Your task to perform on an android device: turn off picture-in-picture Image 0: 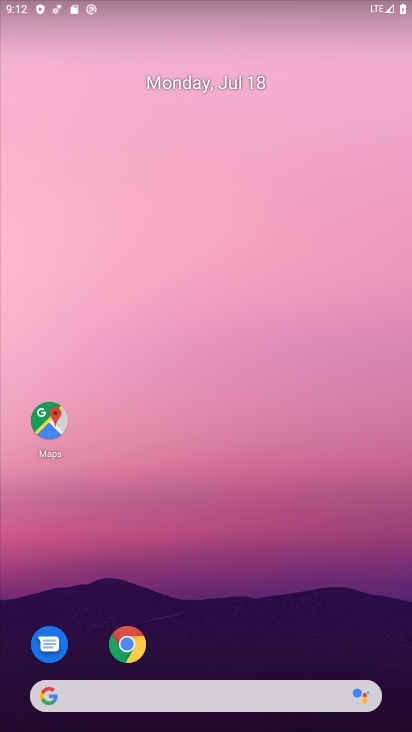
Step 0: drag from (344, 590) to (386, 203)
Your task to perform on an android device: turn off picture-in-picture Image 1: 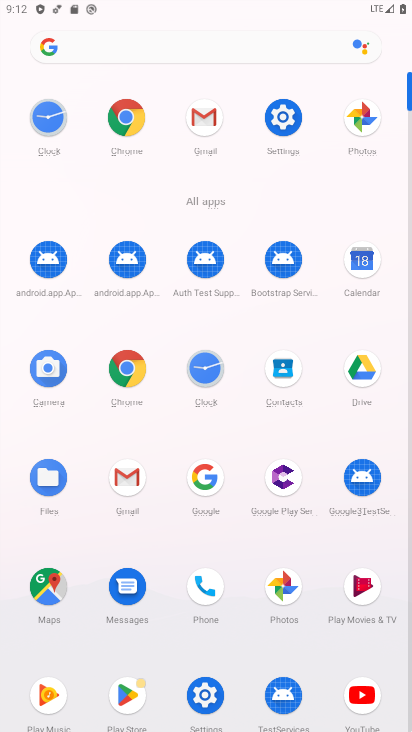
Step 1: click (274, 124)
Your task to perform on an android device: turn off picture-in-picture Image 2: 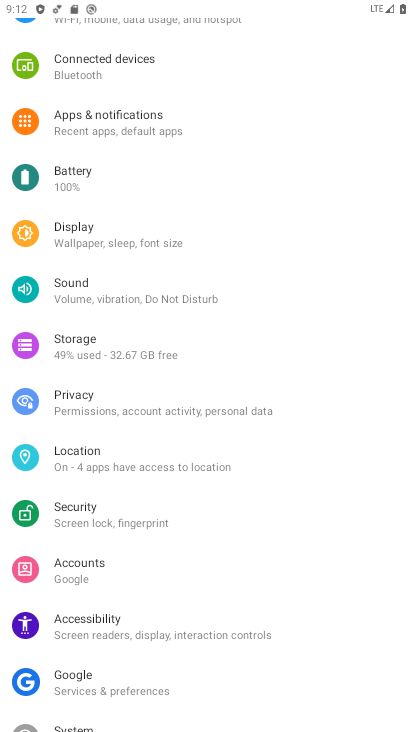
Step 2: drag from (287, 142) to (310, 345)
Your task to perform on an android device: turn off picture-in-picture Image 3: 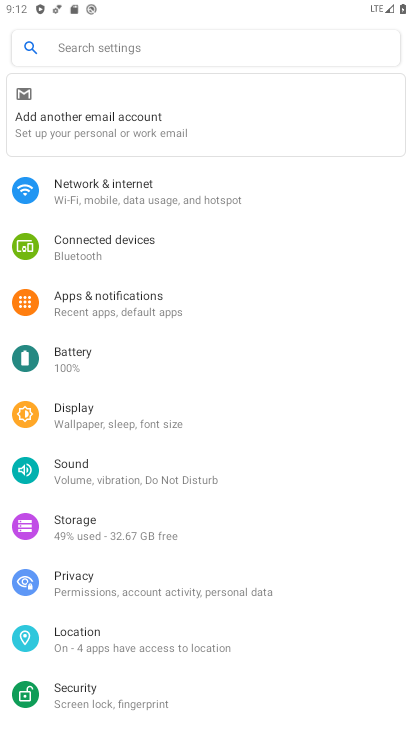
Step 3: drag from (290, 254) to (291, 357)
Your task to perform on an android device: turn off picture-in-picture Image 4: 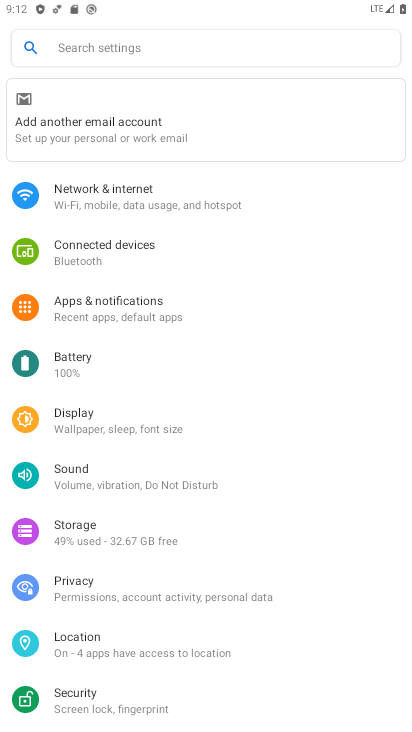
Step 4: click (165, 320)
Your task to perform on an android device: turn off picture-in-picture Image 5: 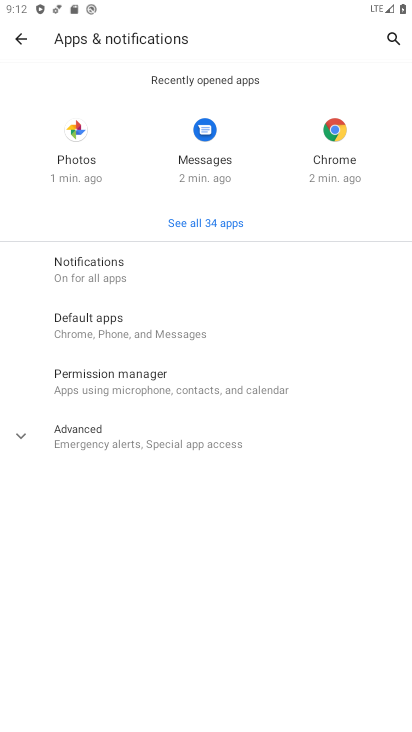
Step 5: click (148, 431)
Your task to perform on an android device: turn off picture-in-picture Image 6: 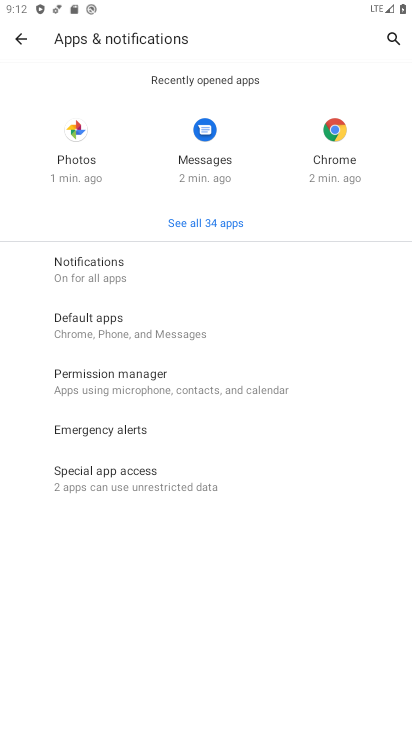
Step 6: click (156, 489)
Your task to perform on an android device: turn off picture-in-picture Image 7: 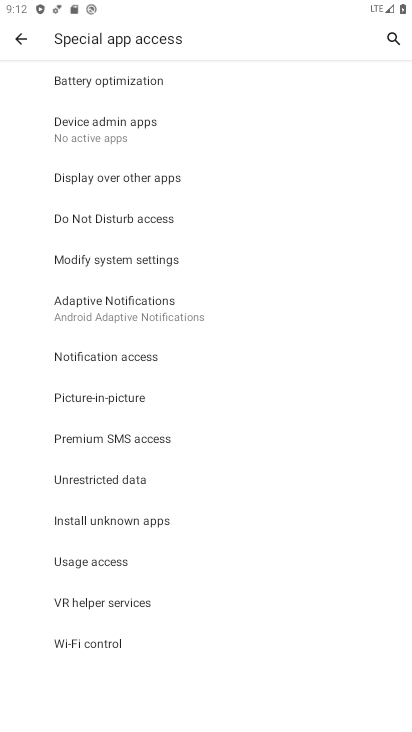
Step 7: click (139, 405)
Your task to perform on an android device: turn off picture-in-picture Image 8: 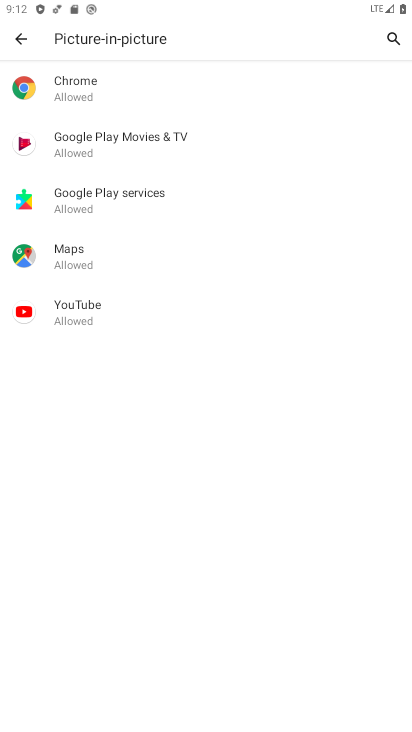
Step 8: click (103, 322)
Your task to perform on an android device: turn off picture-in-picture Image 9: 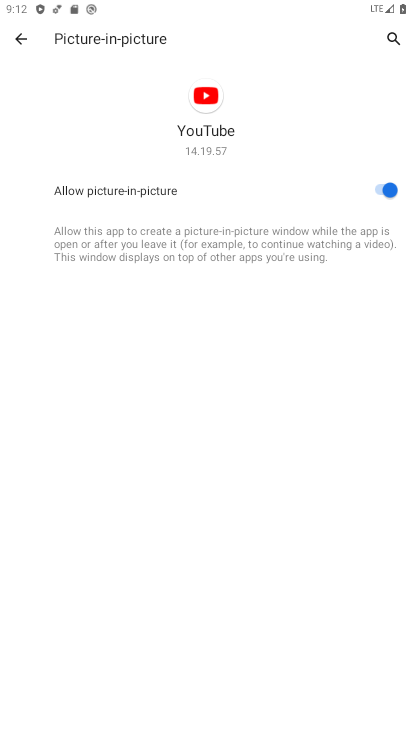
Step 9: click (374, 190)
Your task to perform on an android device: turn off picture-in-picture Image 10: 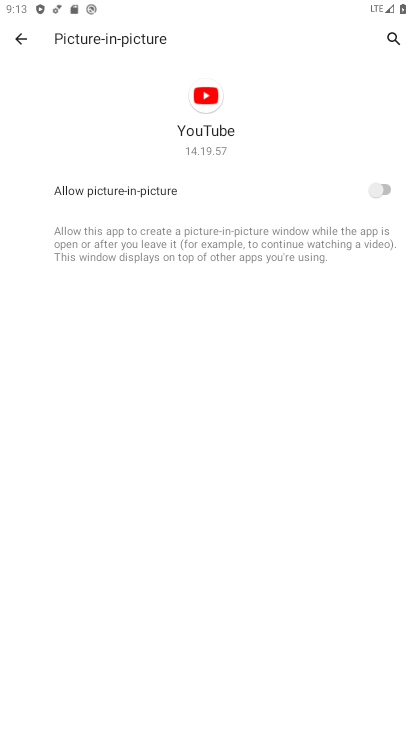
Step 10: task complete